Your task to perform on an android device: find photos in the google photos app Image 0: 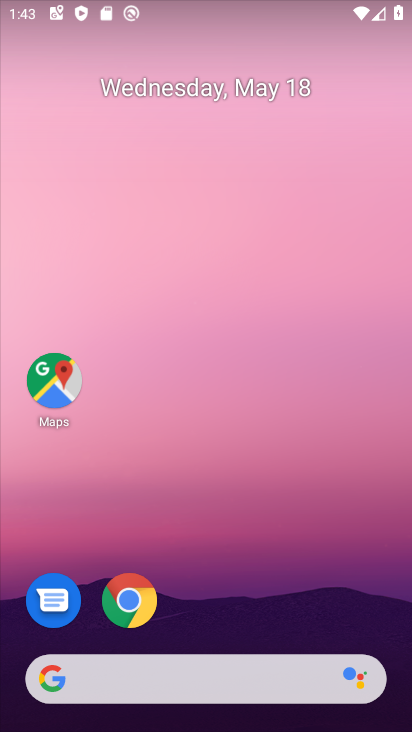
Step 0: drag from (253, 587) to (224, 122)
Your task to perform on an android device: find photos in the google photos app Image 1: 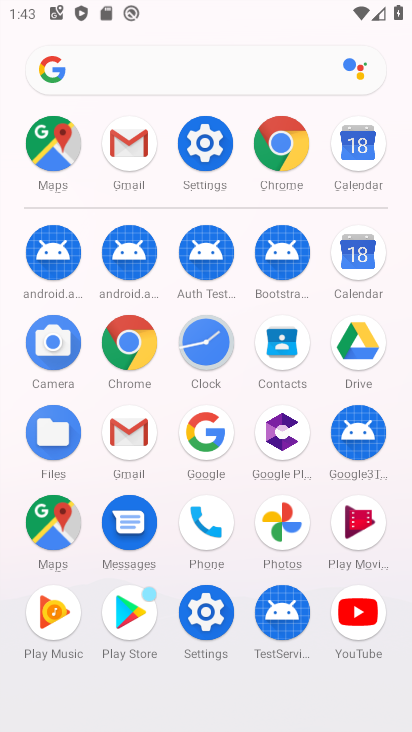
Step 1: click (283, 521)
Your task to perform on an android device: find photos in the google photos app Image 2: 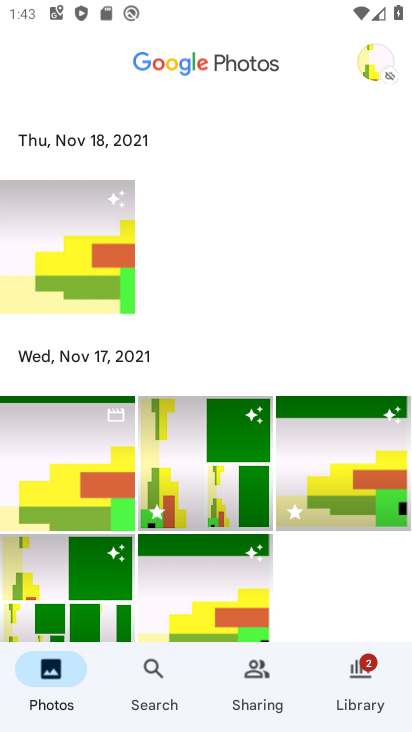
Step 2: click (87, 466)
Your task to perform on an android device: find photos in the google photos app Image 3: 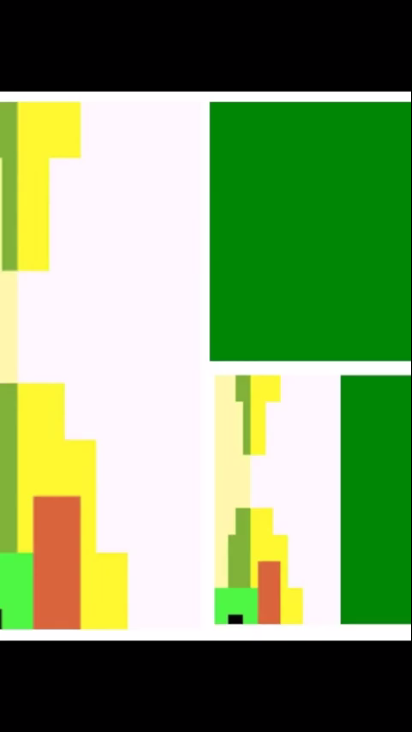
Step 3: task complete